Your task to perform on an android device: snooze an email in the gmail app Image 0: 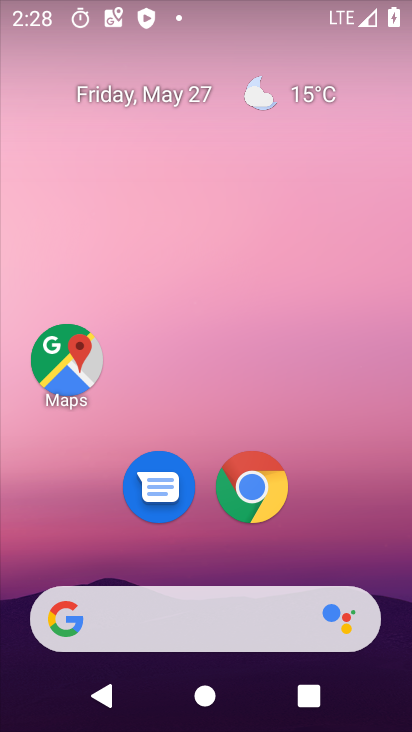
Step 0: drag from (345, 489) to (342, 77)
Your task to perform on an android device: snooze an email in the gmail app Image 1: 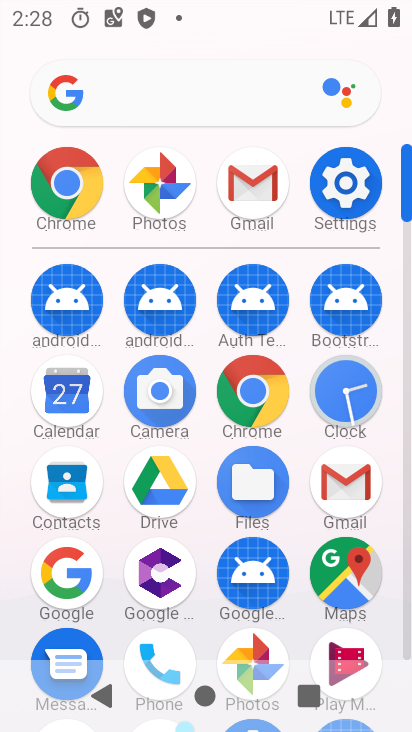
Step 1: click (266, 182)
Your task to perform on an android device: snooze an email in the gmail app Image 2: 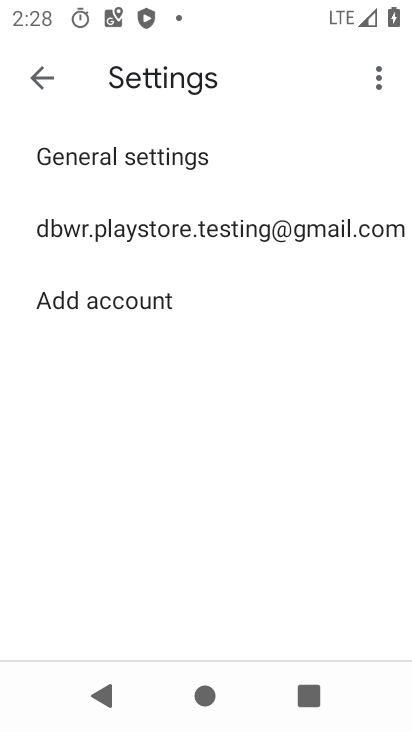
Step 2: click (20, 59)
Your task to perform on an android device: snooze an email in the gmail app Image 3: 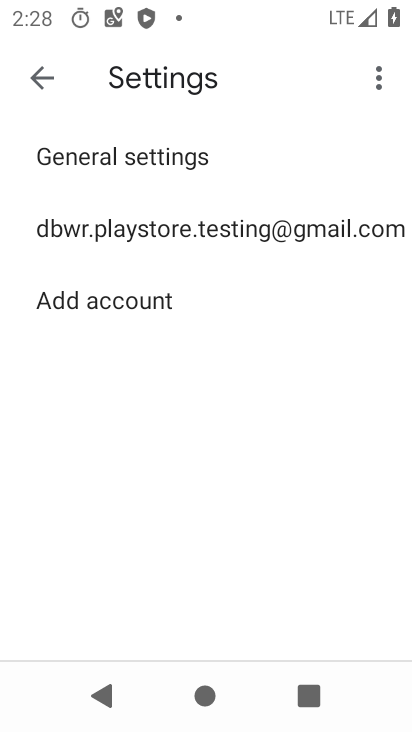
Step 3: click (21, 71)
Your task to perform on an android device: snooze an email in the gmail app Image 4: 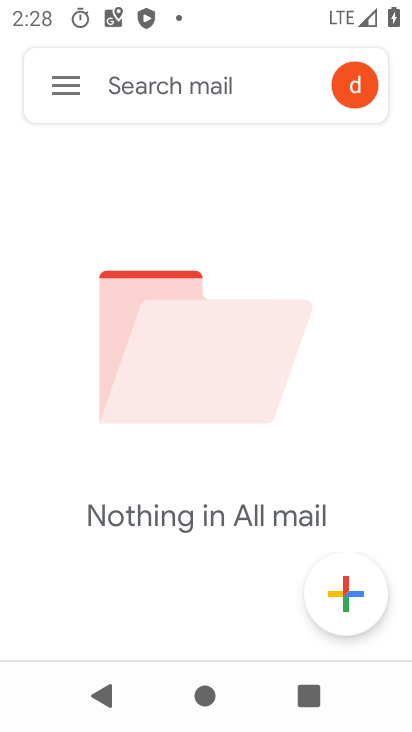
Step 4: click (58, 77)
Your task to perform on an android device: snooze an email in the gmail app Image 5: 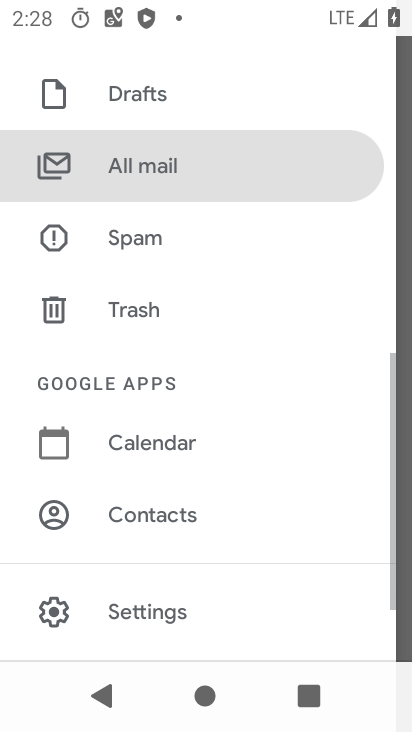
Step 5: drag from (184, 269) to (152, 600)
Your task to perform on an android device: snooze an email in the gmail app Image 6: 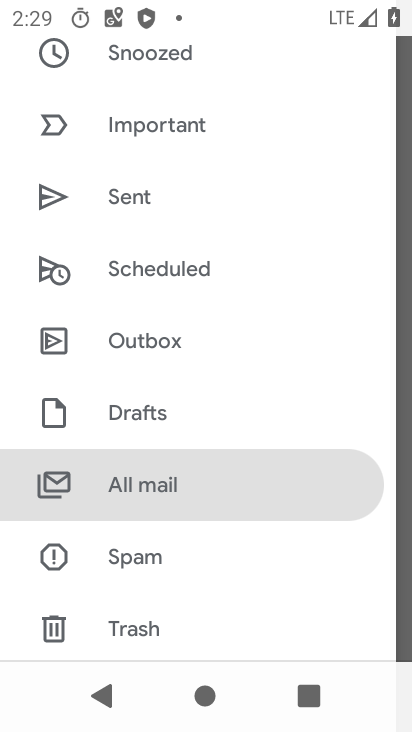
Step 6: drag from (225, 217) to (285, 175)
Your task to perform on an android device: snooze an email in the gmail app Image 7: 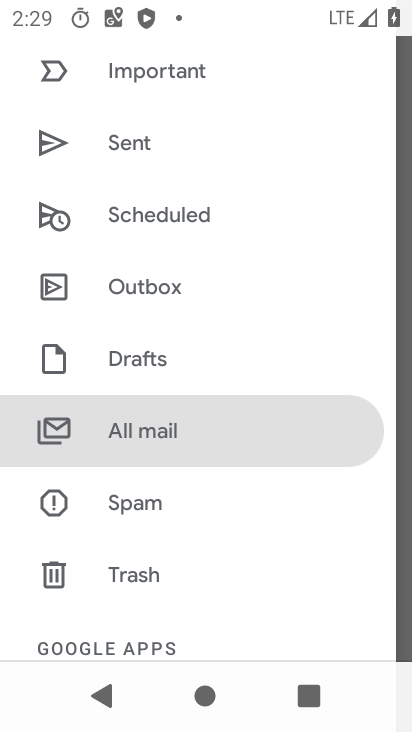
Step 7: click (173, 422)
Your task to perform on an android device: snooze an email in the gmail app Image 8: 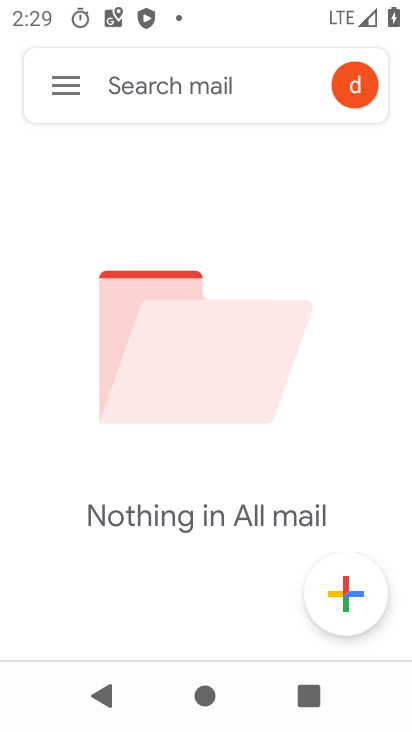
Step 8: task complete